Your task to perform on an android device: find which apps use the phone's location Image 0: 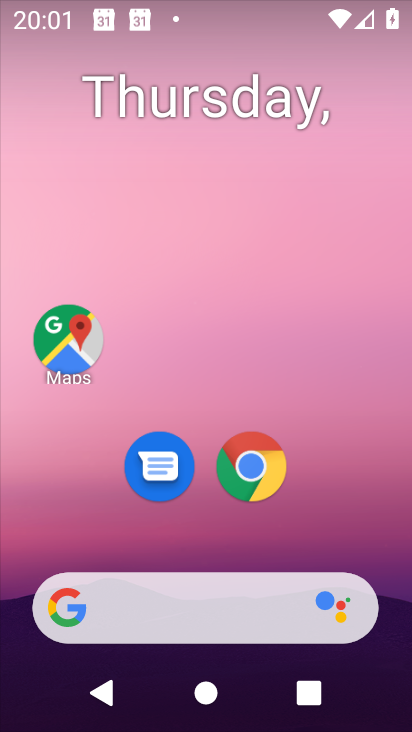
Step 0: drag from (341, 518) to (295, 63)
Your task to perform on an android device: find which apps use the phone's location Image 1: 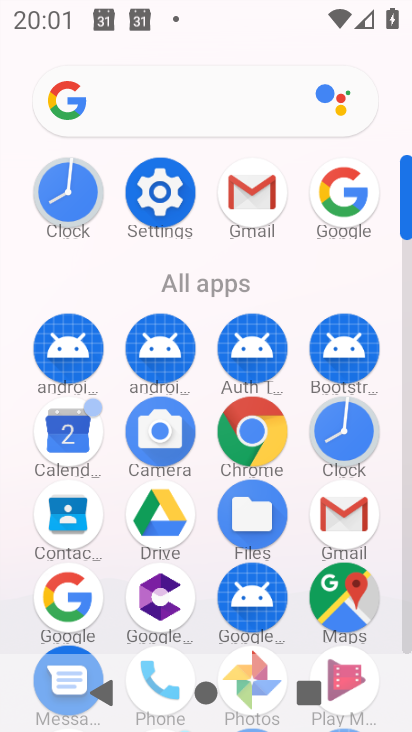
Step 1: click (154, 192)
Your task to perform on an android device: find which apps use the phone's location Image 2: 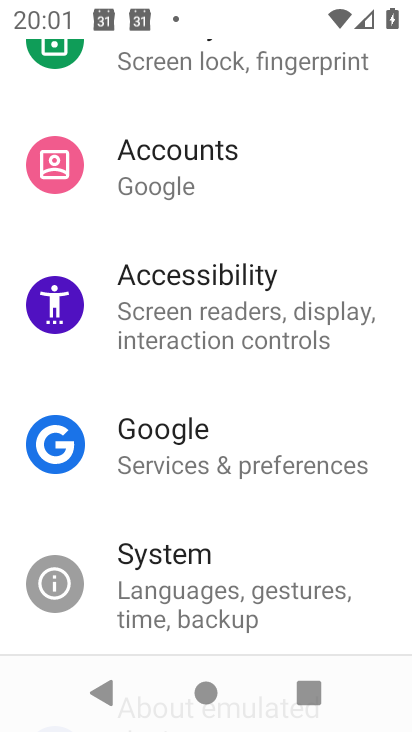
Step 2: drag from (297, 571) to (229, 702)
Your task to perform on an android device: find which apps use the phone's location Image 3: 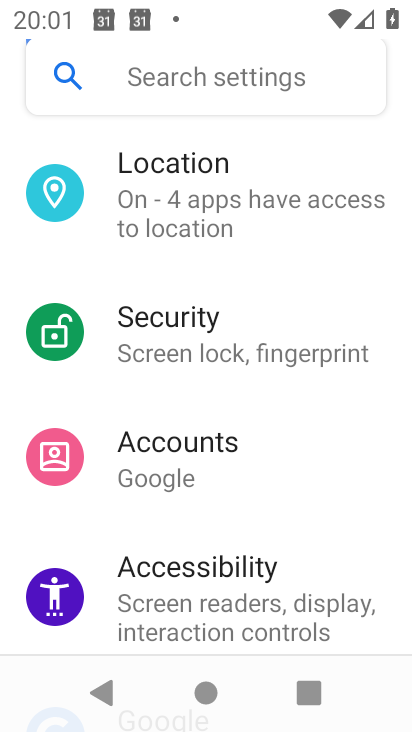
Step 3: click (150, 229)
Your task to perform on an android device: find which apps use the phone's location Image 4: 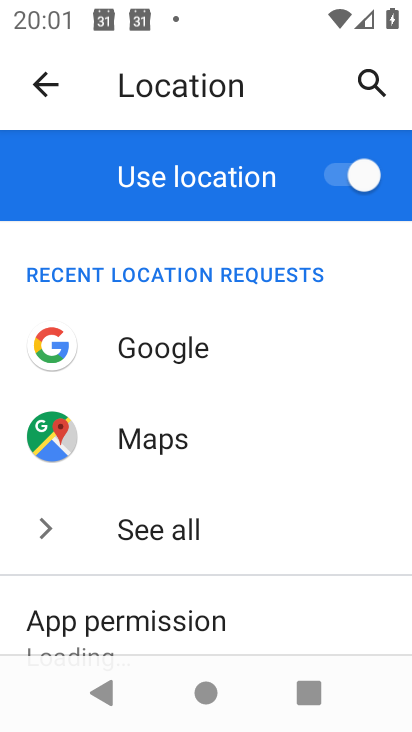
Step 4: click (299, 629)
Your task to perform on an android device: find which apps use the phone's location Image 5: 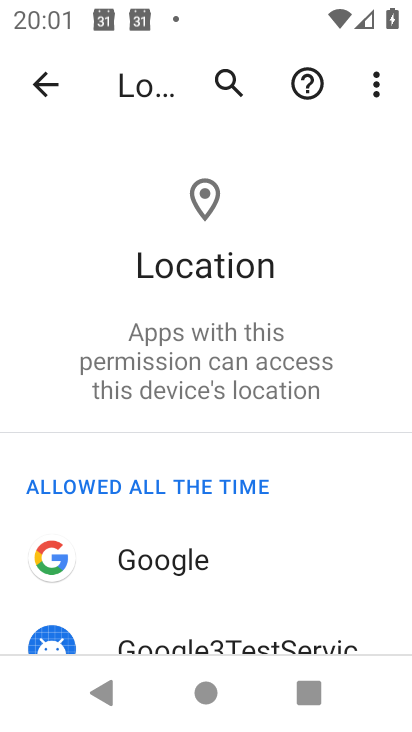
Step 5: task complete